Your task to perform on an android device: turn notification dots off Image 0: 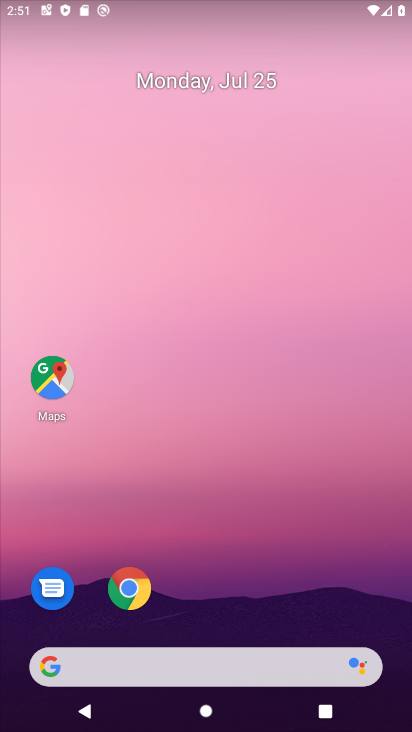
Step 0: drag from (214, 566) to (218, 130)
Your task to perform on an android device: turn notification dots off Image 1: 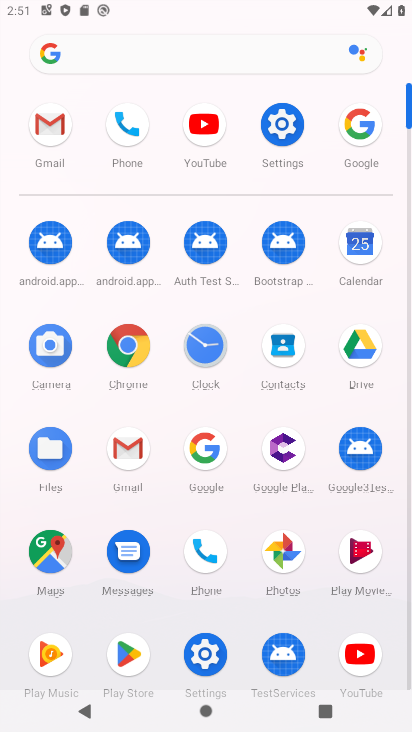
Step 1: click (272, 130)
Your task to perform on an android device: turn notification dots off Image 2: 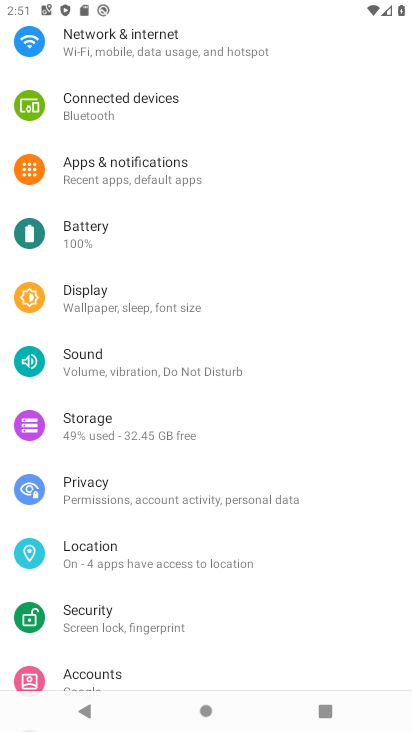
Step 2: click (165, 173)
Your task to perform on an android device: turn notification dots off Image 3: 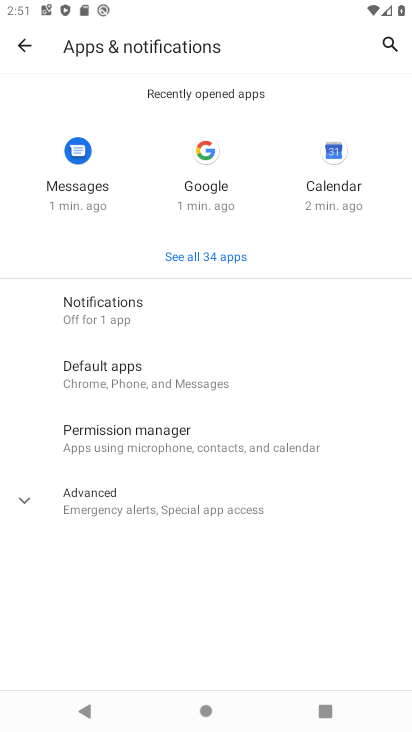
Step 3: click (173, 319)
Your task to perform on an android device: turn notification dots off Image 4: 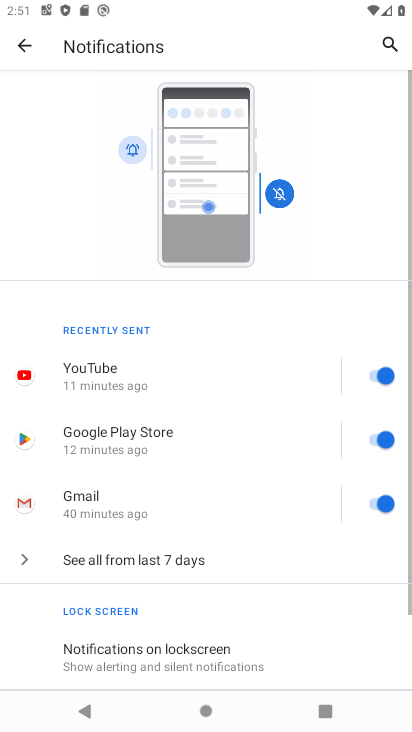
Step 4: drag from (249, 637) to (271, 160)
Your task to perform on an android device: turn notification dots off Image 5: 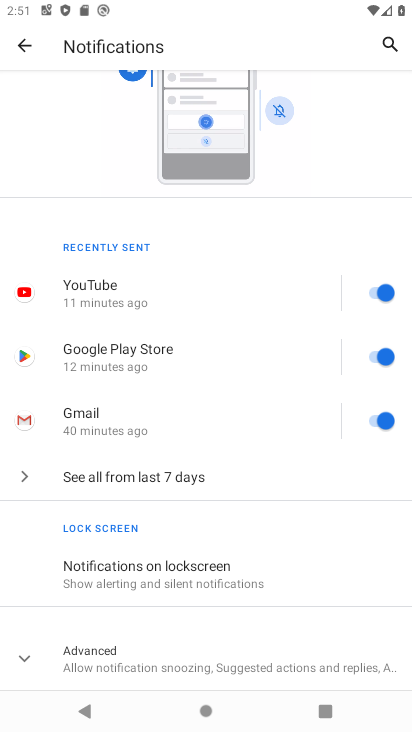
Step 5: click (143, 650)
Your task to perform on an android device: turn notification dots off Image 6: 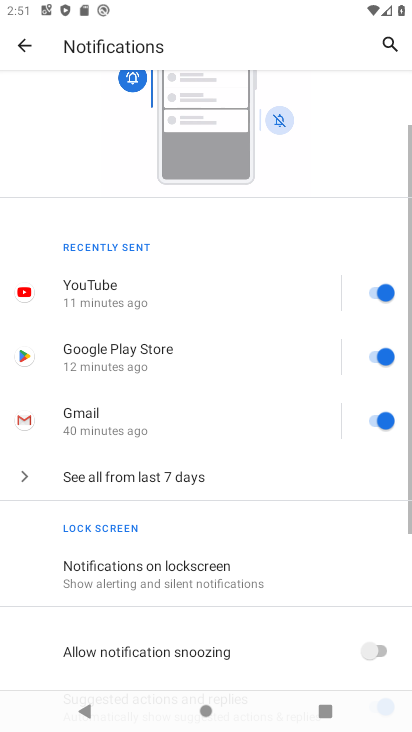
Step 6: task complete